Your task to perform on an android device: stop showing notifications on the lock screen Image 0: 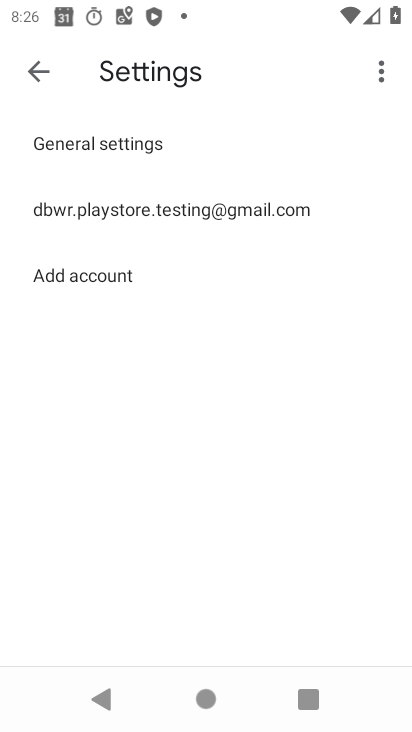
Step 0: press home button
Your task to perform on an android device: stop showing notifications on the lock screen Image 1: 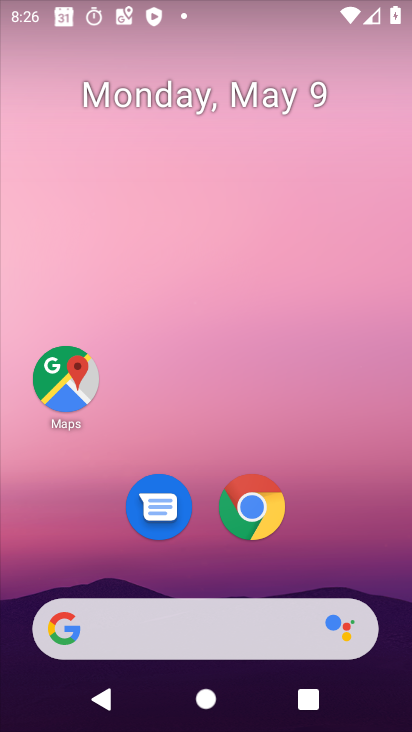
Step 1: drag from (276, 677) to (232, 134)
Your task to perform on an android device: stop showing notifications on the lock screen Image 2: 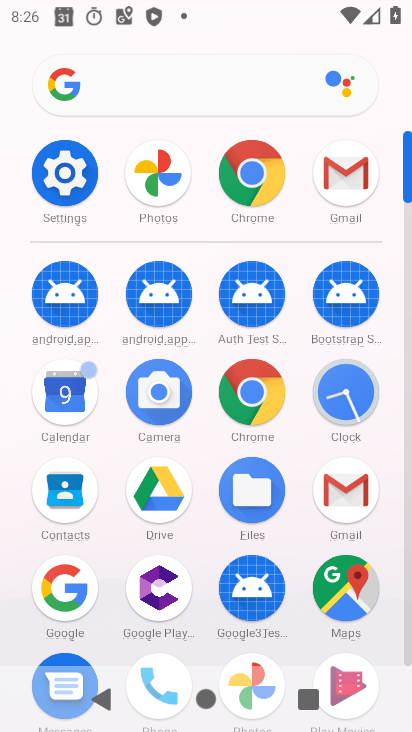
Step 2: click (64, 169)
Your task to perform on an android device: stop showing notifications on the lock screen Image 3: 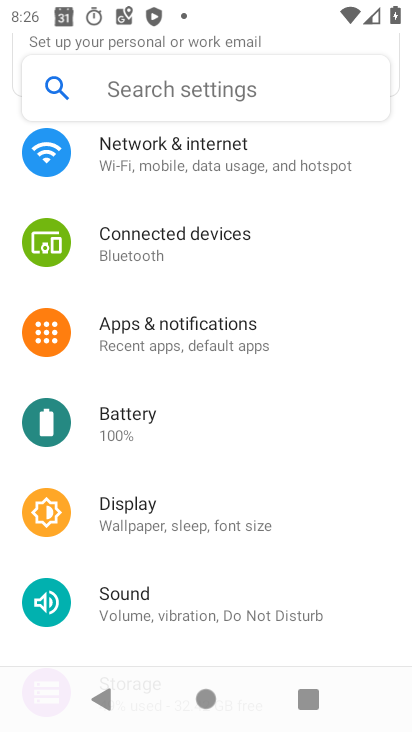
Step 3: click (157, 83)
Your task to perform on an android device: stop showing notifications on the lock screen Image 4: 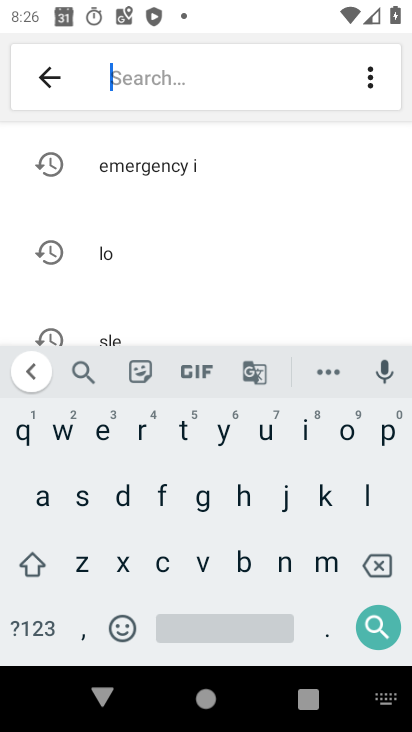
Step 4: click (287, 563)
Your task to perform on an android device: stop showing notifications on the lock screen Image 5: 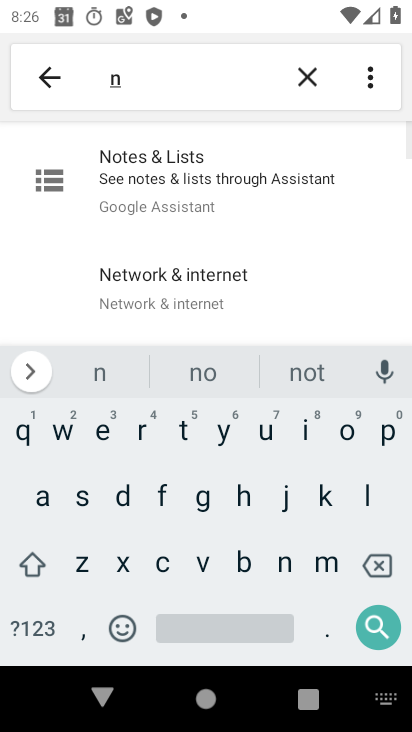
Step 5: click (353, 439)
Your task to perform on an android device: stop showing notifications on the lock screen Image 6: 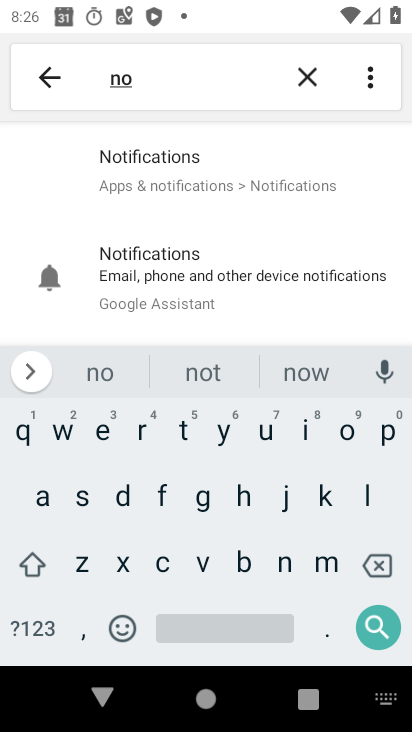
Step 6: click (198, 164)
Your task to perform on an android device: stop showing notifications on the lock screen Image 7: 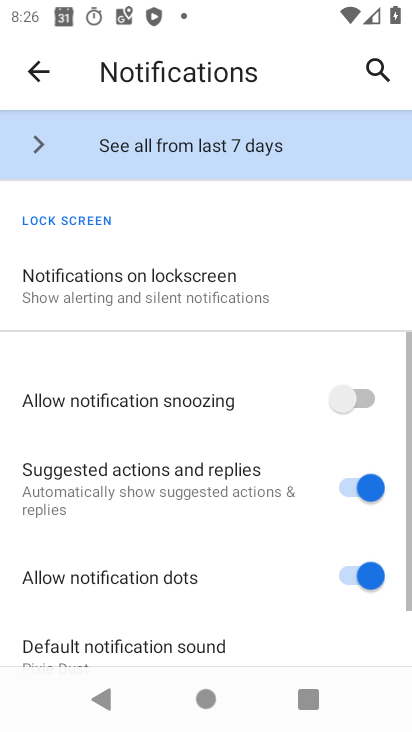
Step 7: click (148, 275)
Your task to perform on an android device: stop showing notifications on the lock screen Image 8: 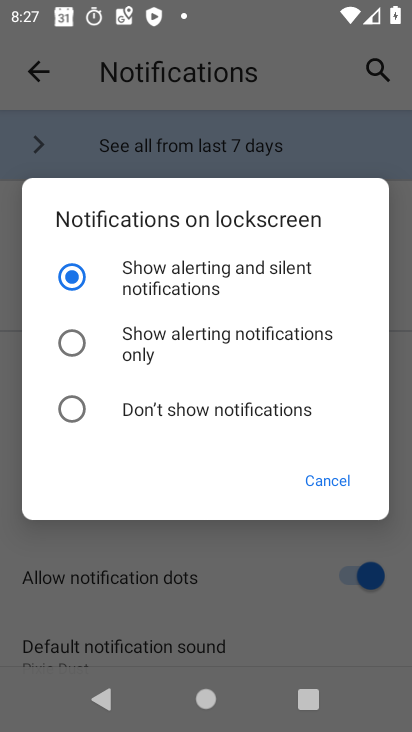
Step 8: click (236, 406)
Your task to perform on an android device: stop showing notifications on the lock screen Image 9: 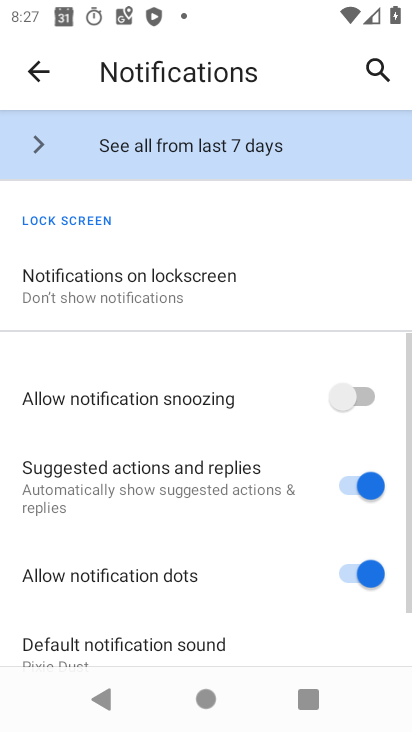
Step 9: task complete